Your task to perform on an android device: change keyboard looks Image 0: 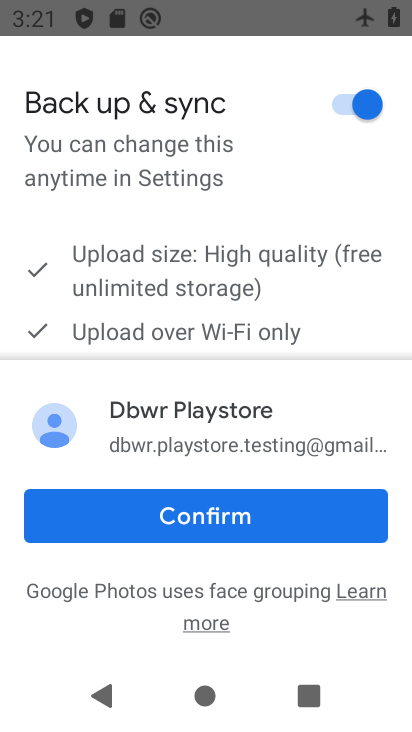
Step 0: press home button
Your task to perform on an android device: change keyboard looks Image 1: 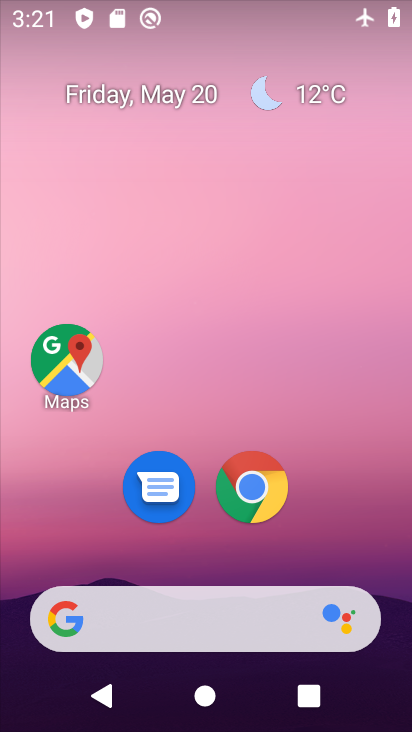
Step 1: drag from (222, 491) to (256, 39)
Your task to perform on an android device: change keyboard looks Image 2: 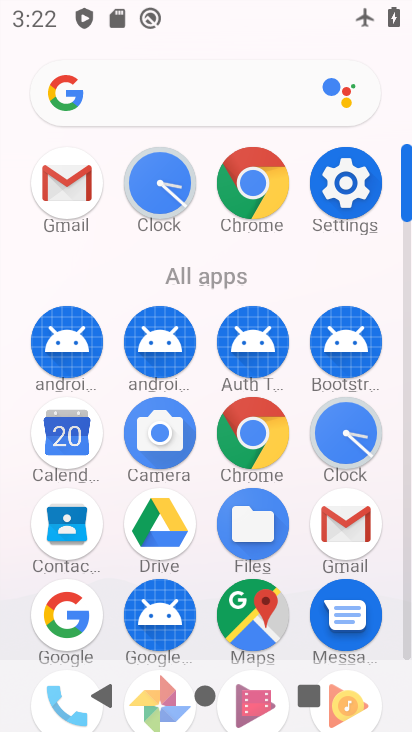
Step 2: click (345, 196)
Your task to perform on an android device: change keyboard looks Image 3: 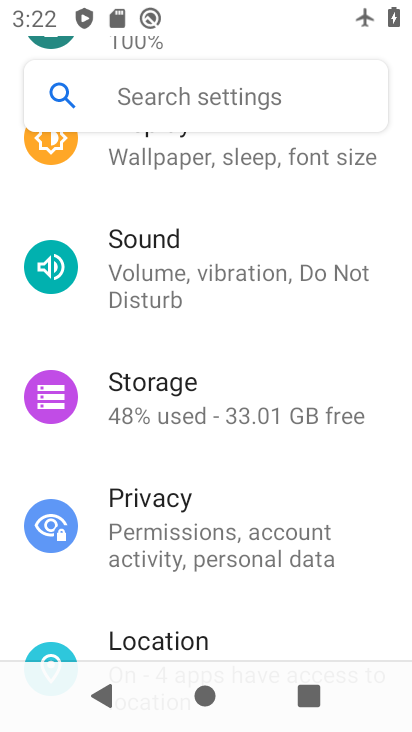
Step 3: drag from (200, 580) to (179, 90)
Your task to perform on an android device: change keyboard looks Image 4: 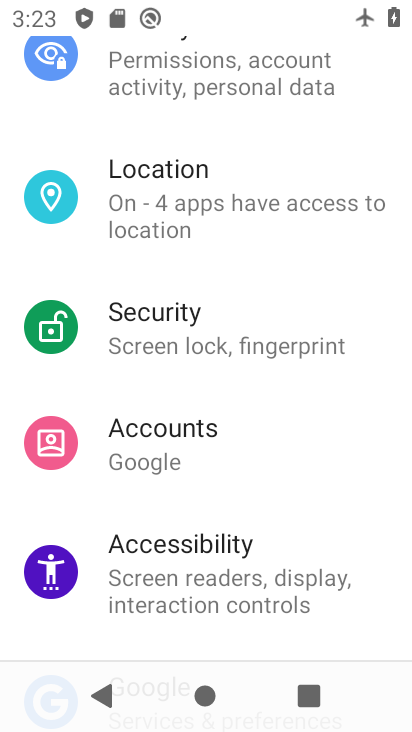
Step 4: drag from (225, 551) to (230, 218)
Your task to perform on an android device: change keyboard looks Image 5: 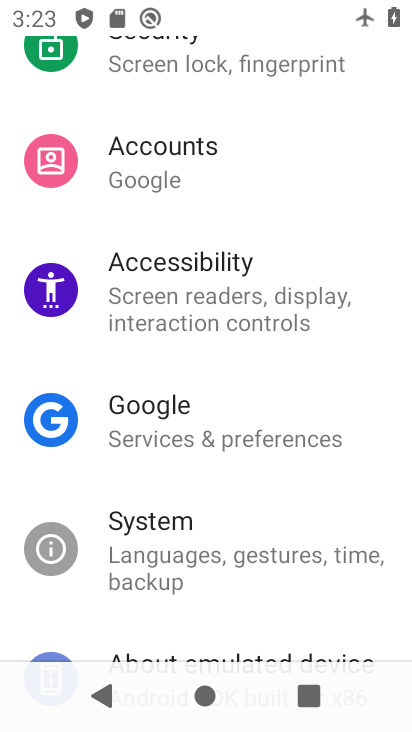
Step 5: drag from (179, 565) to (267, 363)
Your task to perform on an android device: change keyboard looks Image 6: 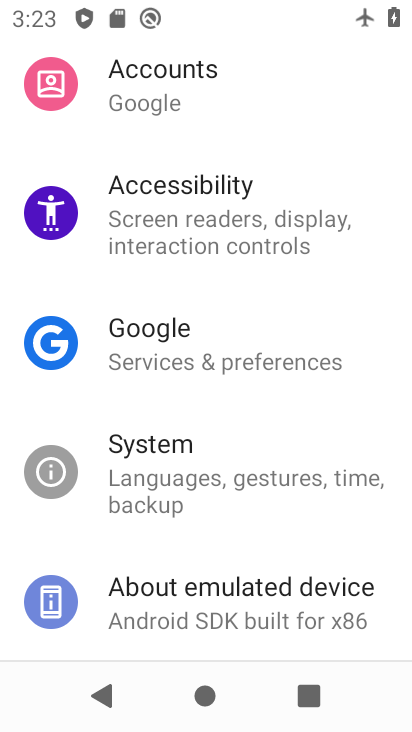
Step 6: click (155, 476)
Your task to perform on an android device: change keyboard looks Image 7: 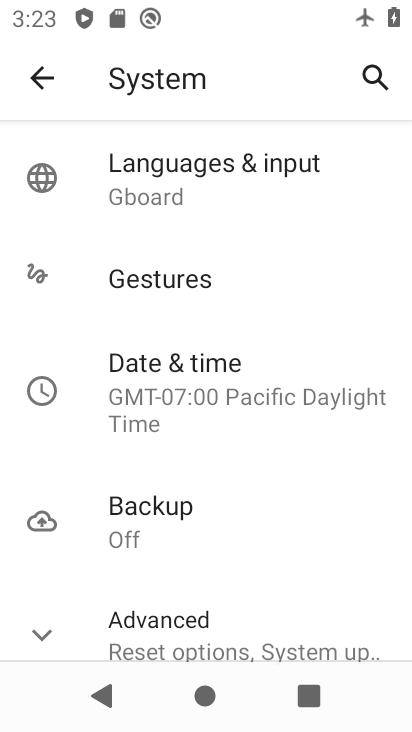
Step 7: click (206, 193)
Your task to perform on an android device: change keyboard looks Image 8: 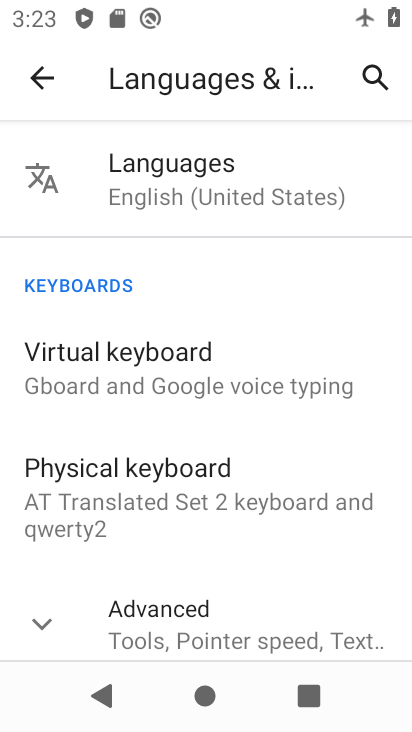
Step 8: click (121, 377)
Your task to perform on an android device: change keyboard looks Image 9: 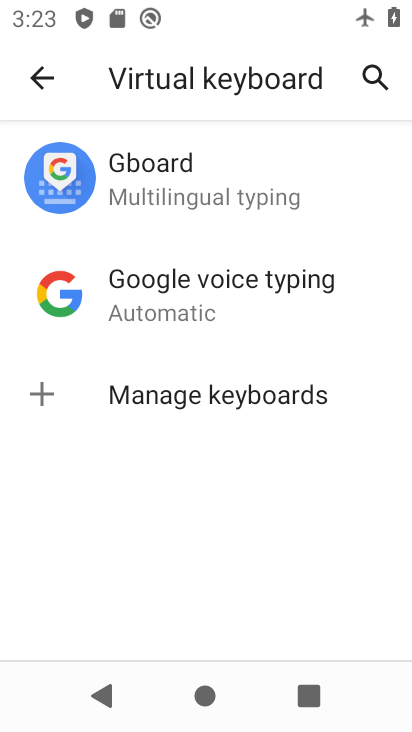
Step 9: click (180, 204)
Your task to perform on an android device: change keyboard looks Image 10: 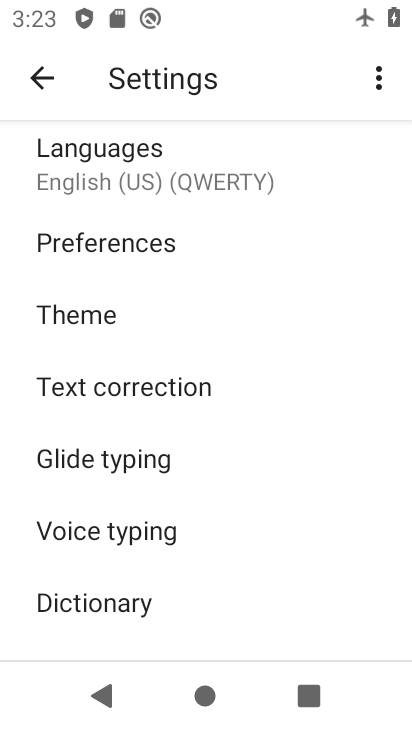
Step 10: click (101, 309)
Your task to perform on an android device: change keyboard looks Image 11: 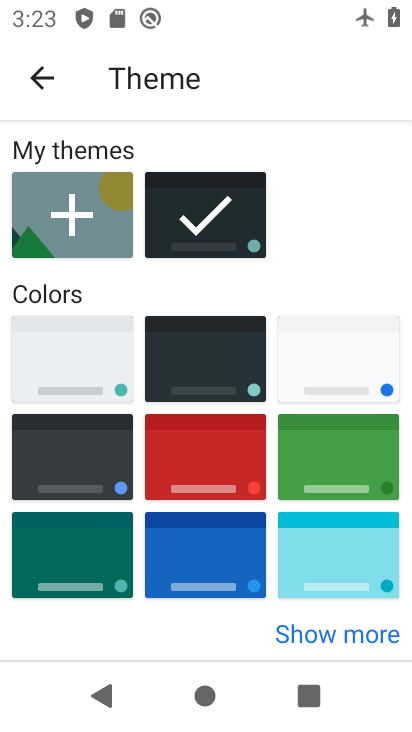
Step 11: click (225, 334)
Your task to perform on an android device: change keyboard looks Image 12: 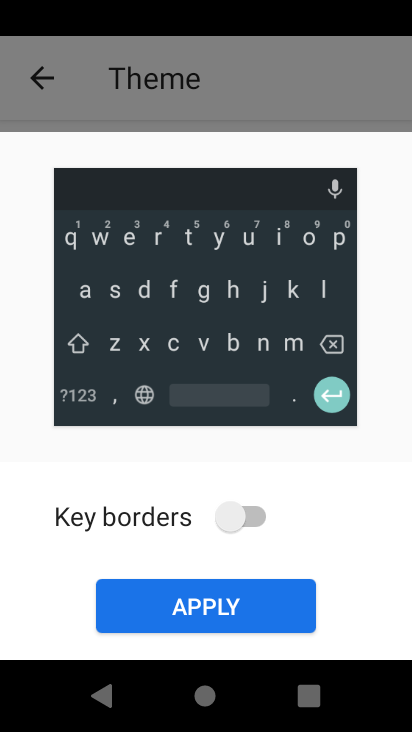
Step 12: click (193, 593)
Your task to perform on an android device: change keyboard looks Image 13: 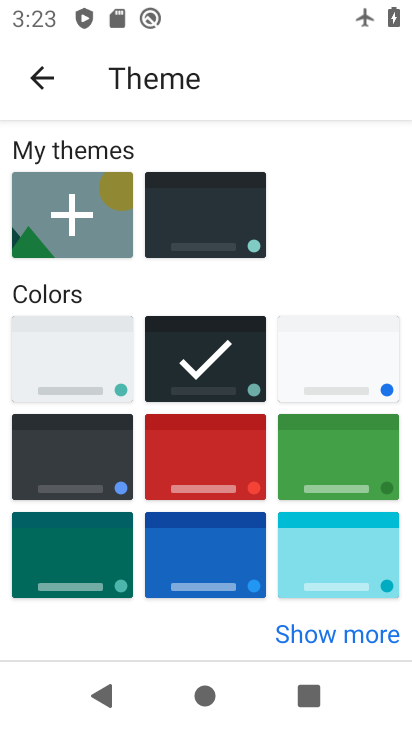
Step 13: task complete